Your task to perform on an android device: find snoozed emails in the gmail app Image 0: 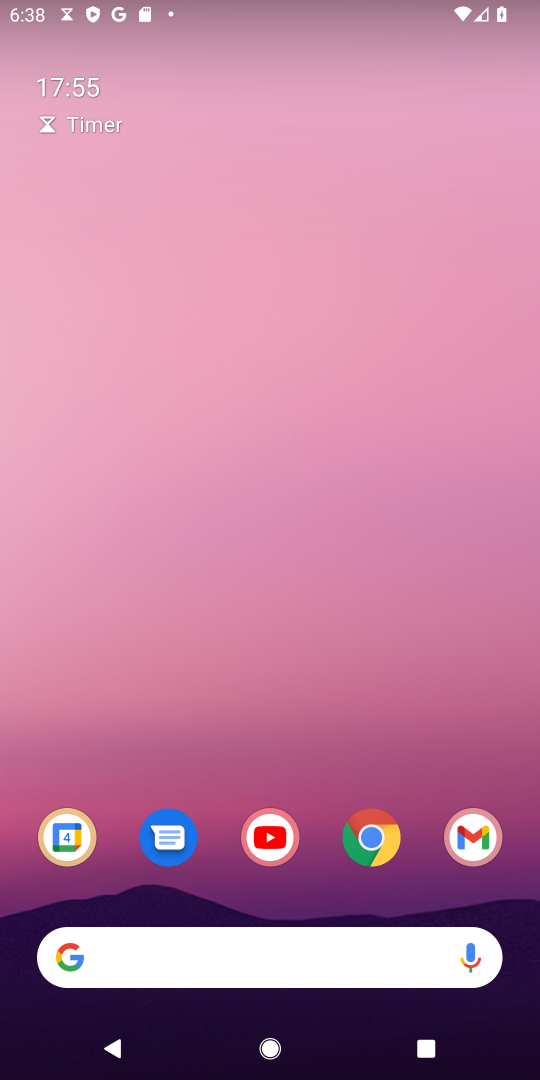
Step 0: press home button
Your task to perform on an android device: find snoozed emails in the gmail app Image 1: 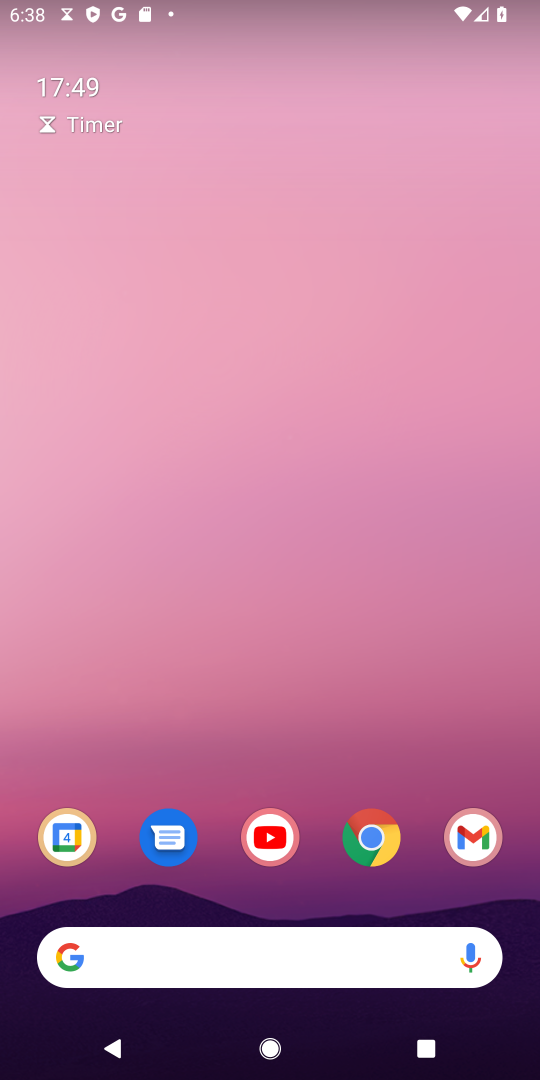
Step 1: click (477, 830)
Your task to perform on an android device: find snoozed emails in the gmail app Image 2: 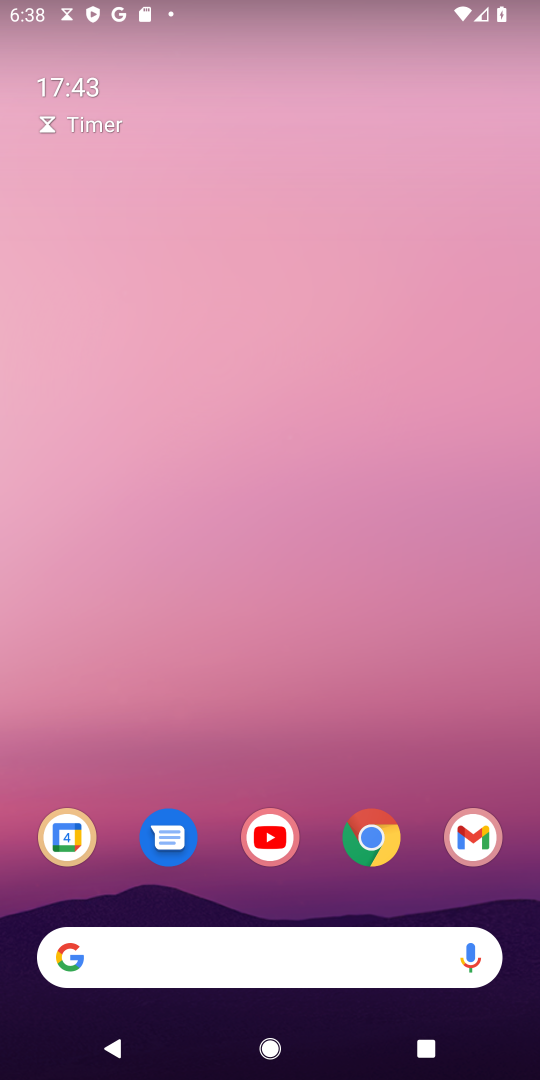
Step 2: click (474, 829)
Your task to perform on an android device: find snoozed emails in the gmail app Image 3: 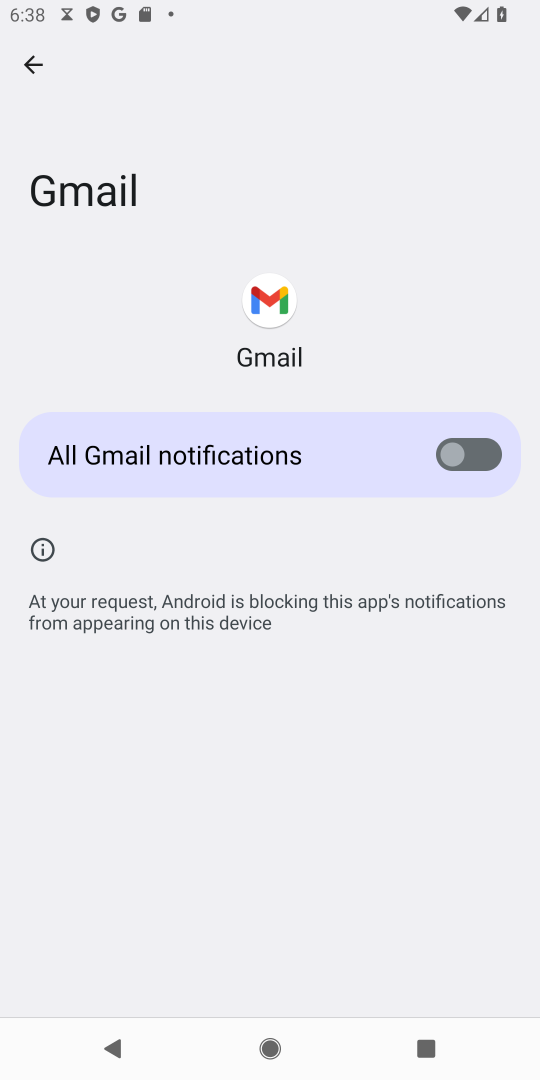
Step 3: click (29, 64)
Your task to perform on an android device: find snoozed emails in the gmail app Image 4: 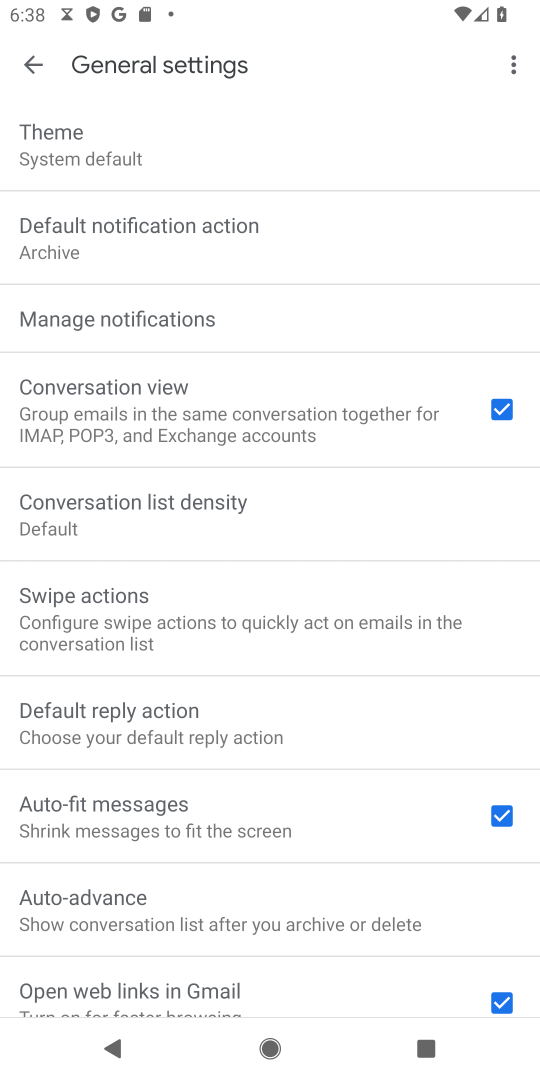
Step 4: click (25, 62)
Your task to perform on an android device: find snoozed emails in the gmail app Image 5: 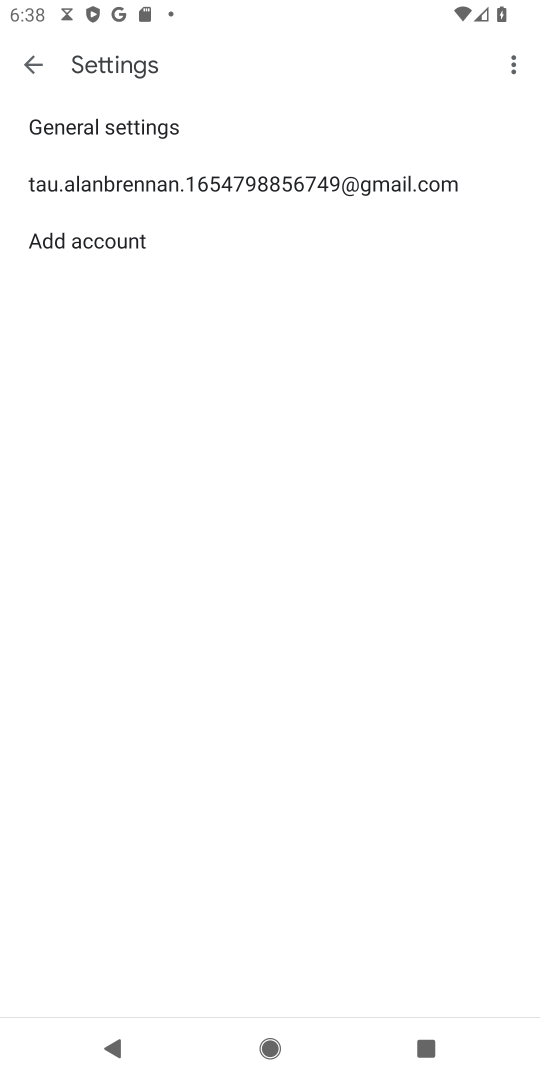
Step 5: click (28, 52)
Your task to perform on an android device: find snoozed emails in the gmail app Image 6: 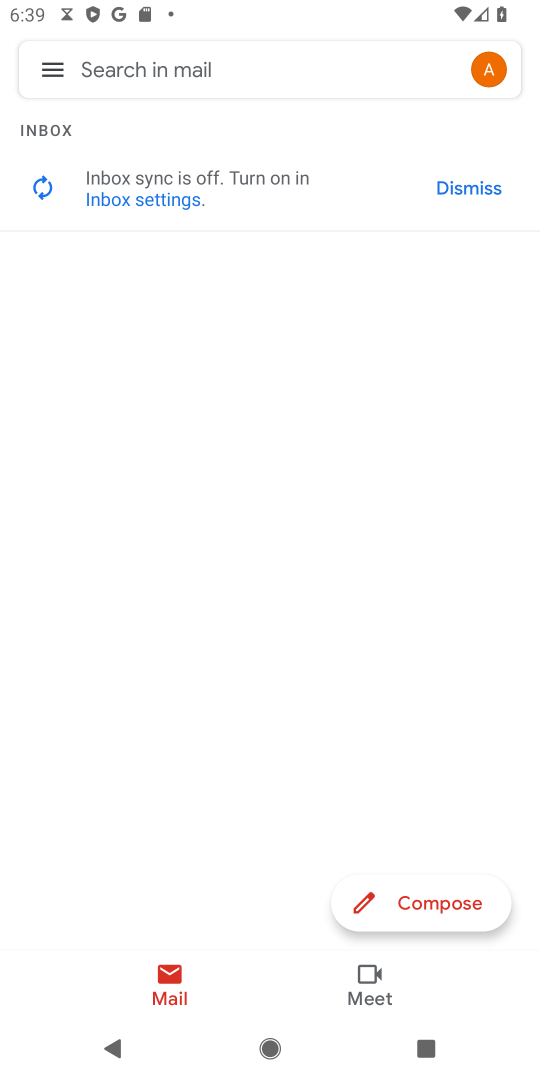
Step 6: click (50, 70)
Your task to perform on an android device: find snoozed emails in the gmail app Image 7: 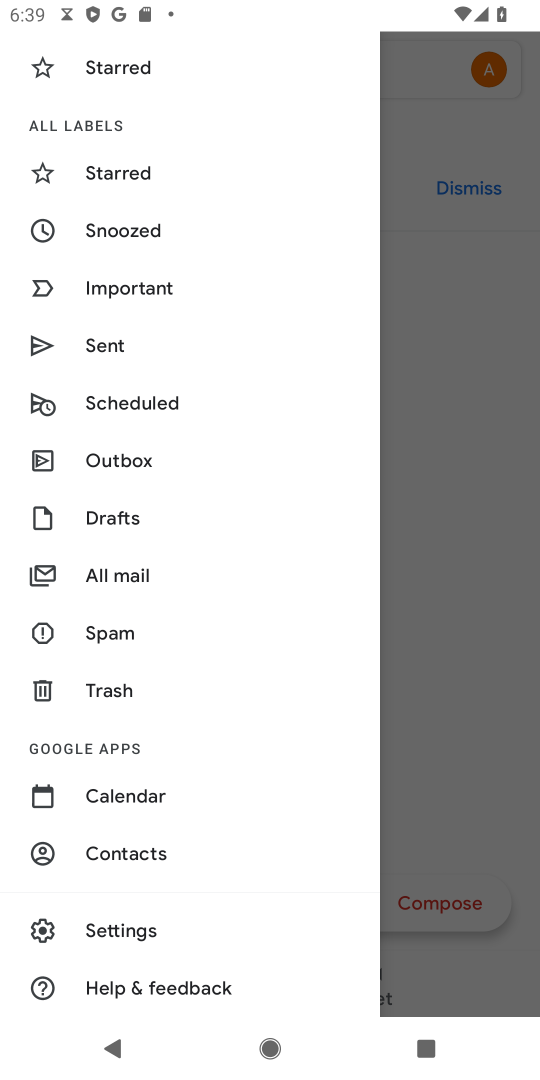
Step 7: click (115, 225)
Your task to perform on an android device: find snoozed emails in the gmail app Image 8: 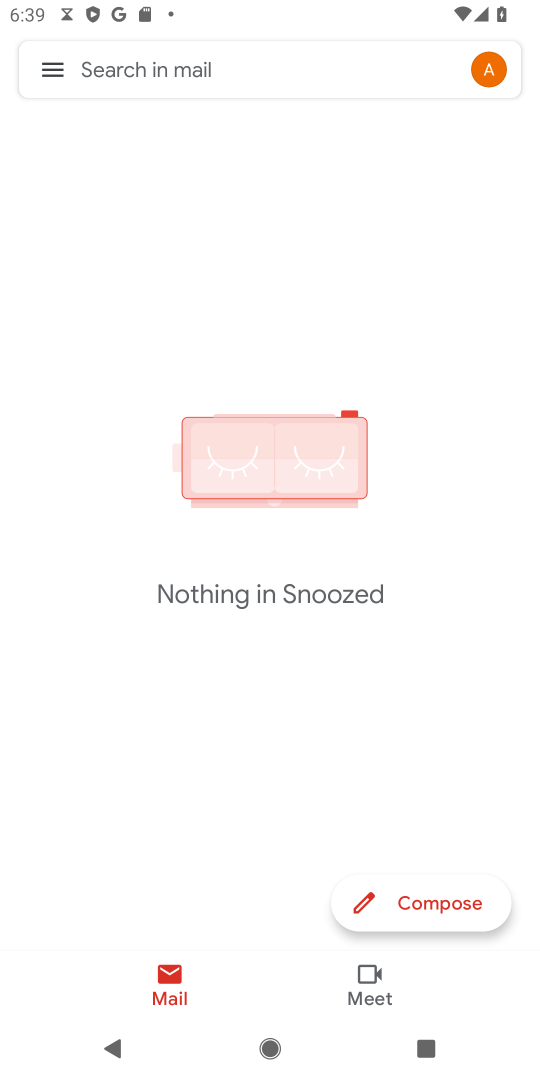
Step 8: task complete